Your task to perform on an android device: Go to network settings Image 0: 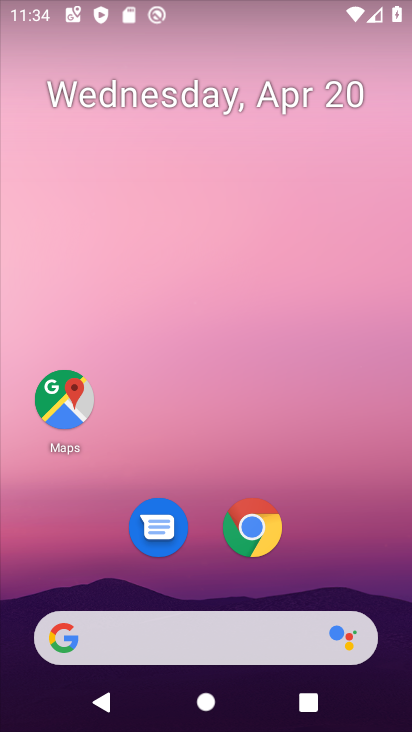
Step 0: drag from (344, 550) to (343, 102)
Your task to perform on an android device: Go to network settings Image 1: 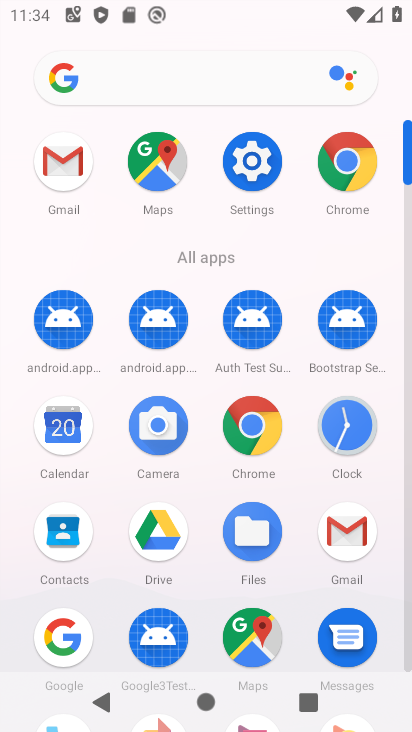
Step 1: click (260, 168)
Your task to perform on an android device: Go to network settings Image 2: 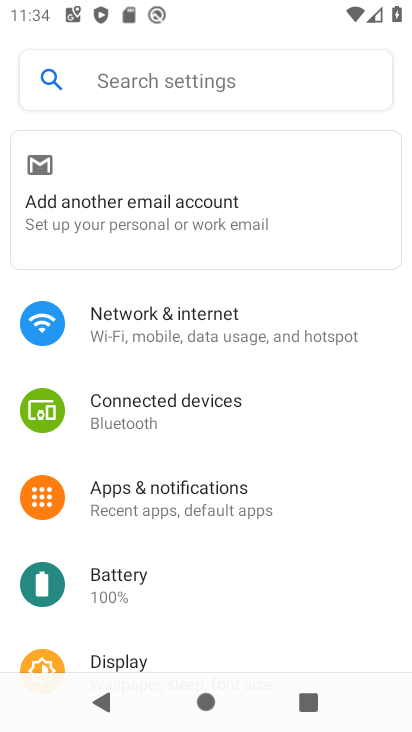
Step 2: click (134, 321)
Your task to perform on an android device: Go to network settings Image 3: 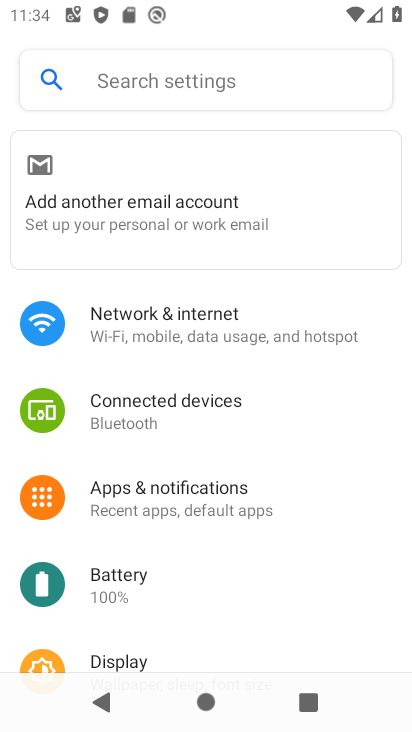
Step 3: task complete